Your task to perform on an android device: Open battery settings Image 0: 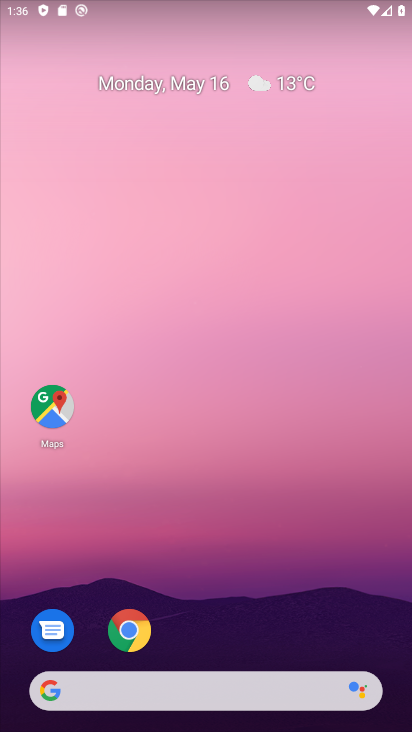
Step 0: drag from (209, 100) to (263, 70)
Your task to perform on an android device: Open battery settings Image 1: 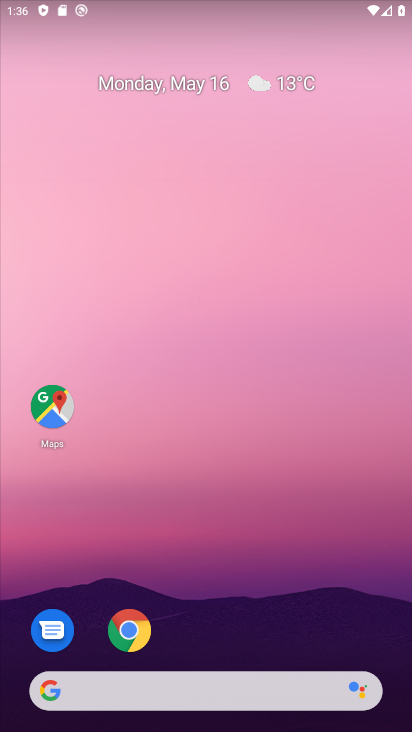
Step 1: drag from (298, 126) to (290, 17)
Your task to perform on an android device: Open battery settings Image 2: 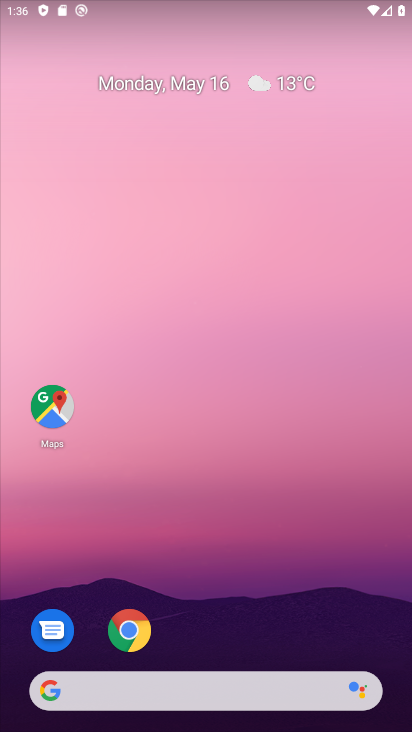
Step 2: drag from (326, 533) to (313, 26)
Your task to perform on an android device: Open battery settings Image 3: 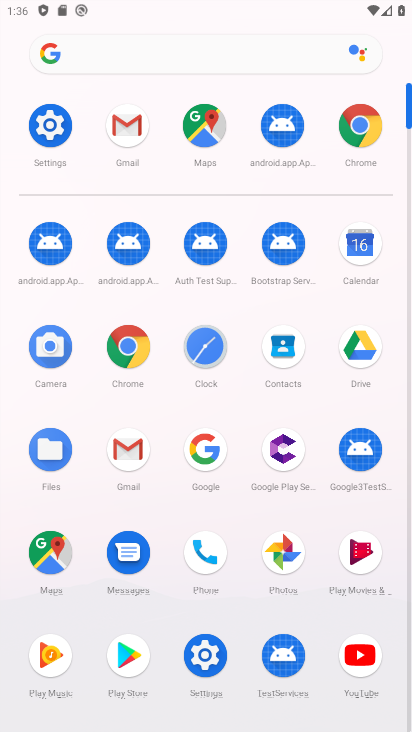
Step 3: click (47, 120)
Your task to perform on an android device: Open battery settings Image 4: 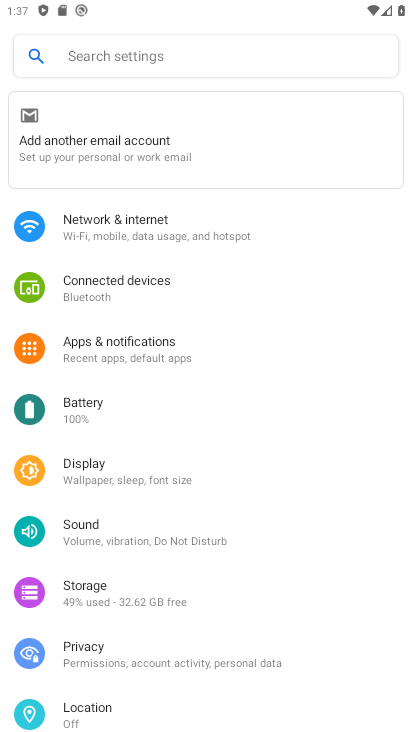
Step 4: click (60, 407)
Your task to perform on an android device: Open battery settings Image 5: 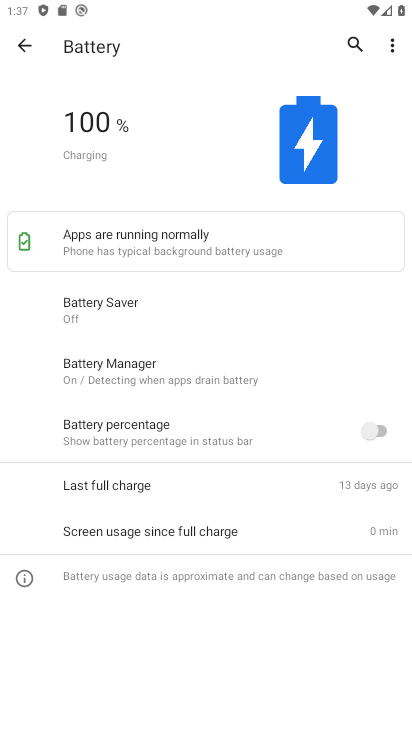
Step 5: task complete